Your task to perform on an android device: open app "Speedtest by Ookla" Image 0: 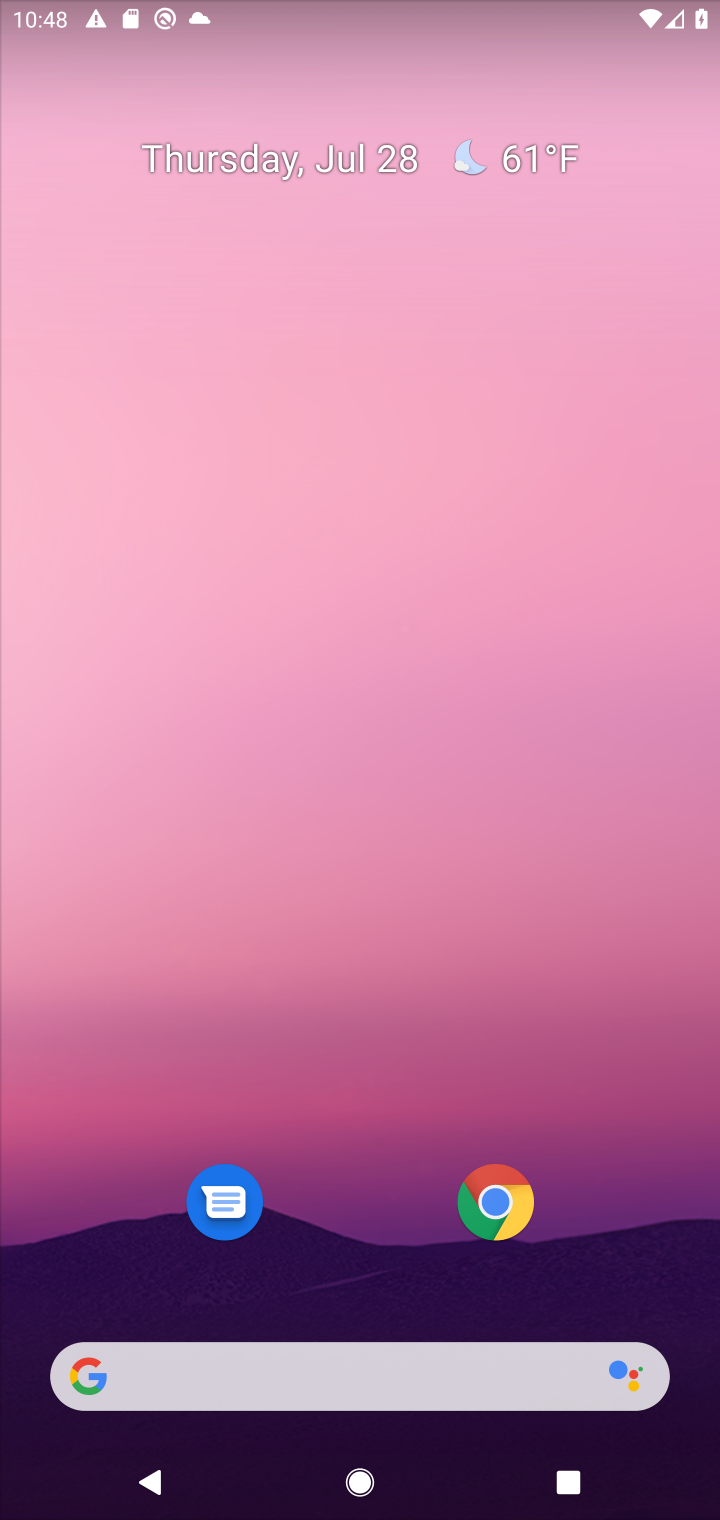
Step 0: click (371, 1369)
Your task to perform on an android device: open app "Speedtest by Ookla" Image 1: 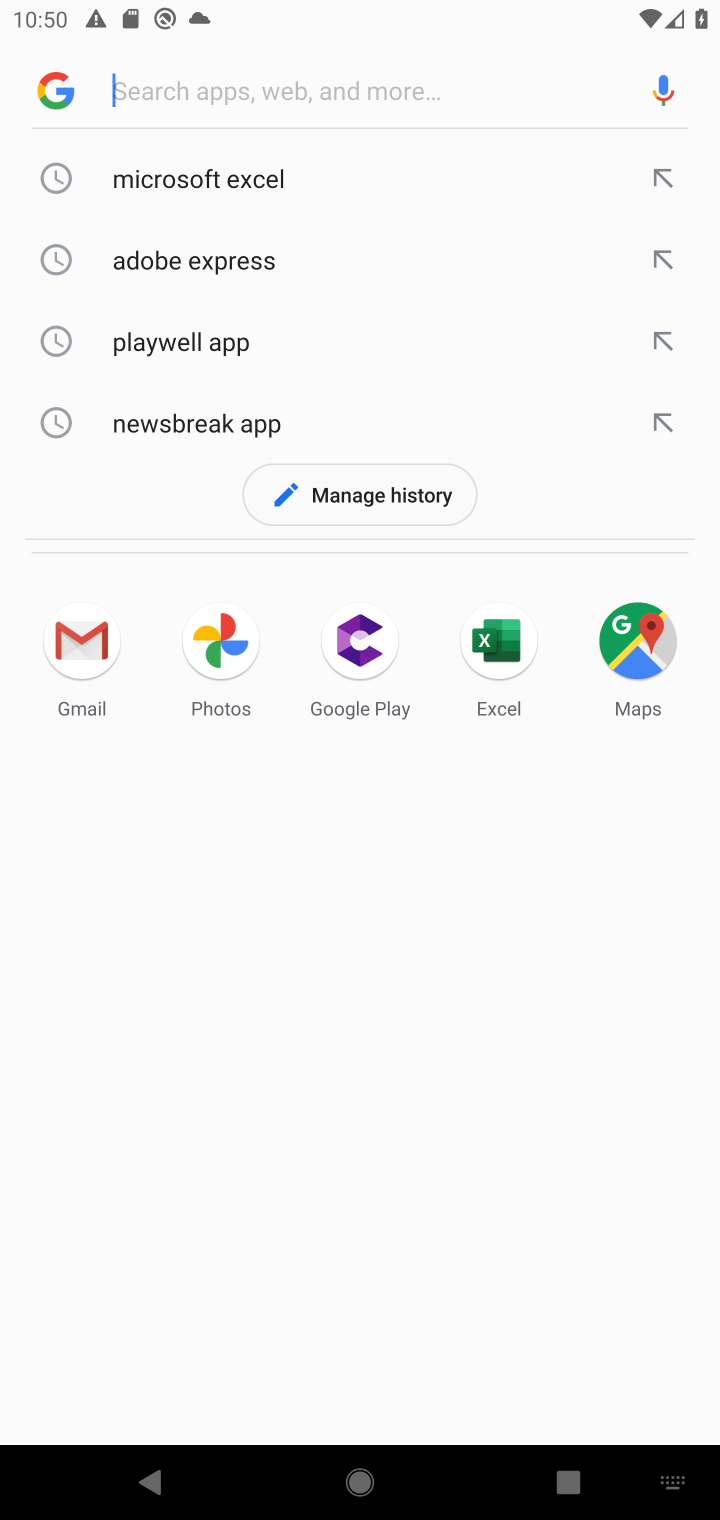
Step 1: task complete